Your task to perform on an android device: open a bookmark in the chrome app Image 0: 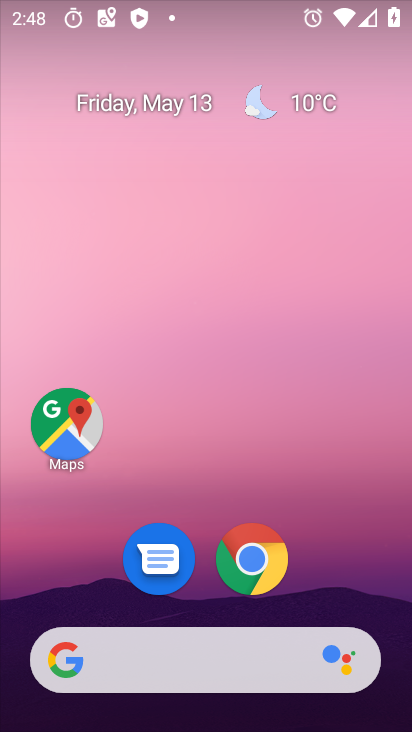
Step 0: click (255, 587)
Your task to perform on an android device: open a bookmark in the chrome app Image 1: 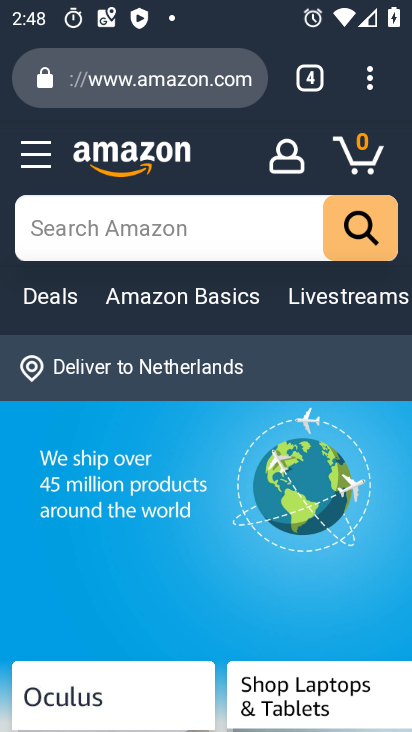
Step 1: task complete